Your task to perform on an android device: delete a single message in the gmail app Image 0: 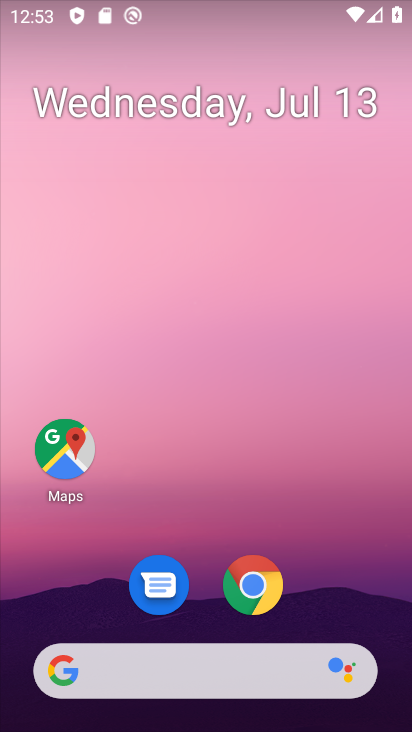
Step 0: drag from (326, 566) to (317, 18)
Your task to perform on an android device: delete a single message in the gmail app Image 1: 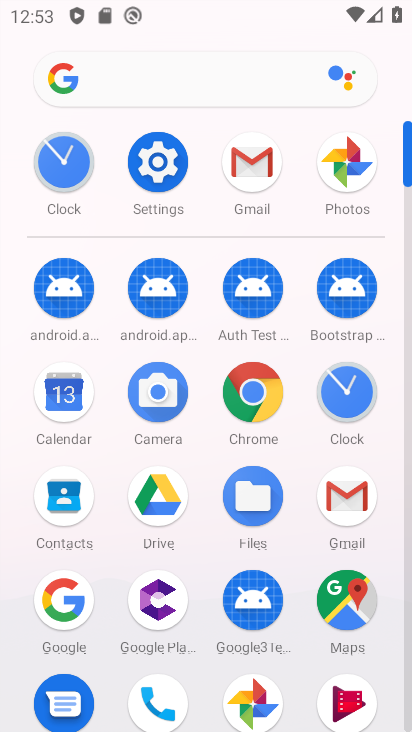
Step 1: click (259, 165)
Your task to perform on an android device: delete a single message in the gmail app Image 2: 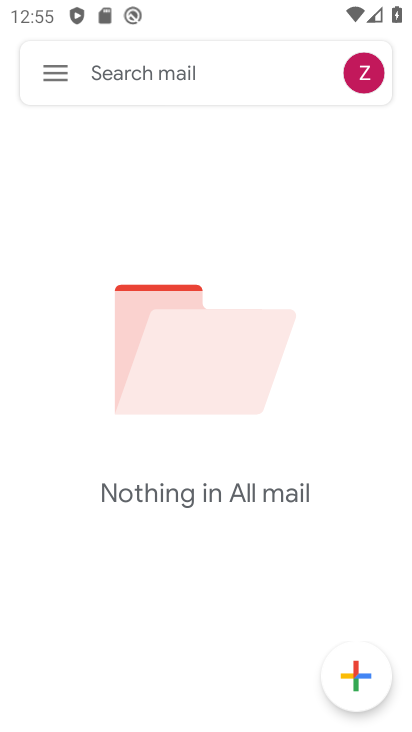
Step 2: task complete